Your task to perform on an android device: View the shopping cart on newegg. Search for usb-b on newegg, select the first entry, add it to the cart, then select checkout. Image 0: 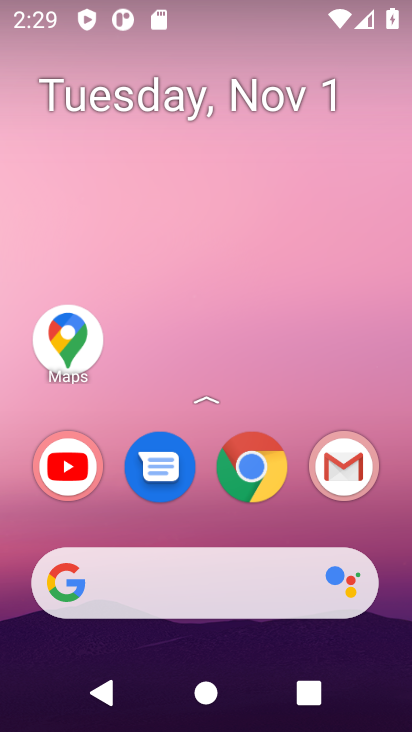
Step 0: click (269, 471)
Your task to perform on an android device: View the shopping cart on newegg. Search for usb-b on newegg, select the first entry, add it to the cart, then select checkout. Image 1: 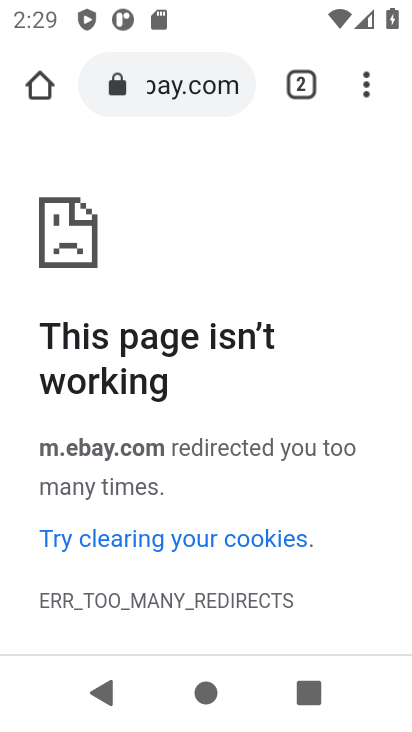
Step 1: click (216, 96)
Your task to perform on an android device: View the shopping cart on newegg. Search for usb-b on newegg, select the first entry, add it to the cart, then select checkout. Image 2: 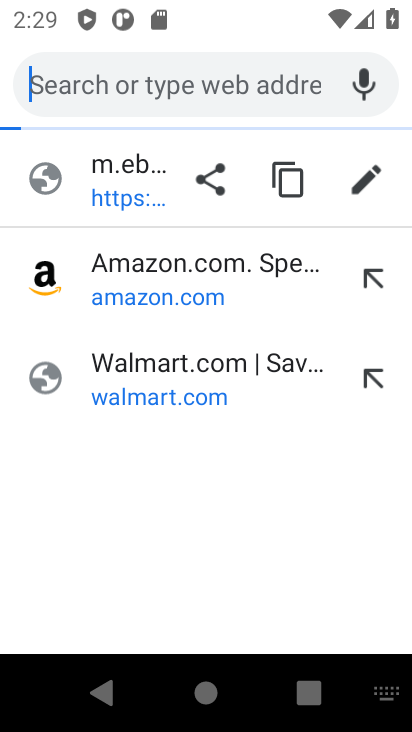
Step 2: type "newegg"
Your task to perform on an android device: View the shopping cart on newegg. Search for usb-b on newegg, select the first entry, add it to the cart, then select checkout. Image 3: 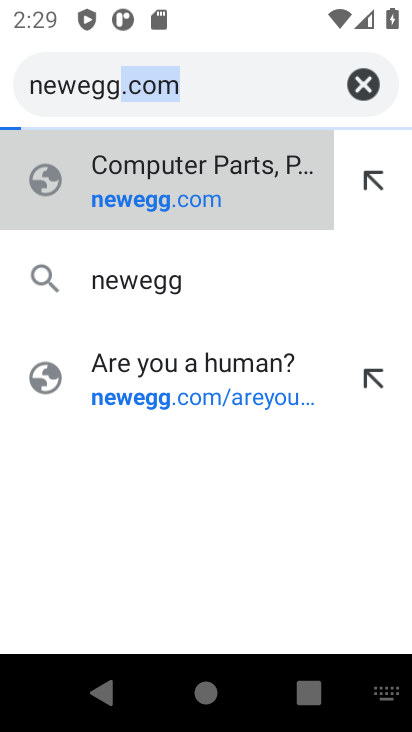
Step 3: type ""
Your task to perform on an android device: View the shopping cart on newegg. Search for usb-b on newegg, select the first entry, add it to the cart, then select checkout. Image 4: 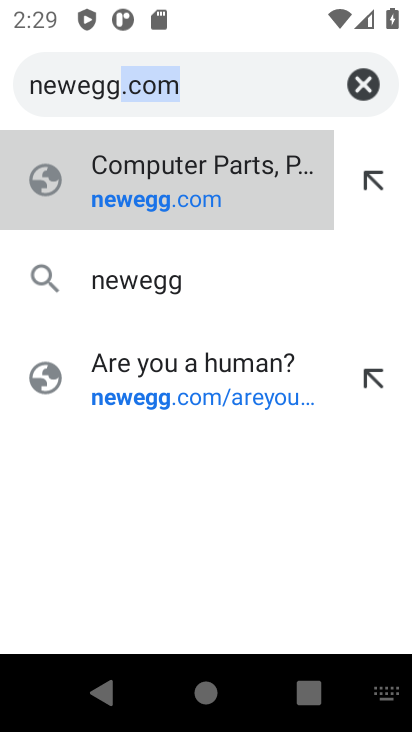
Step 4: press enter
Your task to perform on an android device: View the shopping cart on newegg. Search for usb-b on newegg, select the first entry, add it to the cart, then select checkout. Image 5: 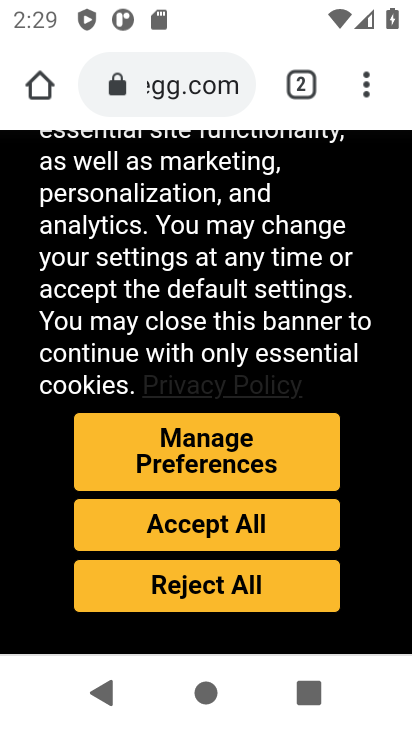
Step 5: click (236, 527)
Your task to perform on an android device: View the shopping cart on newegg. Search for usb-b on newegg, select the first entry, add it to the cart, then select checkout. Image 6: 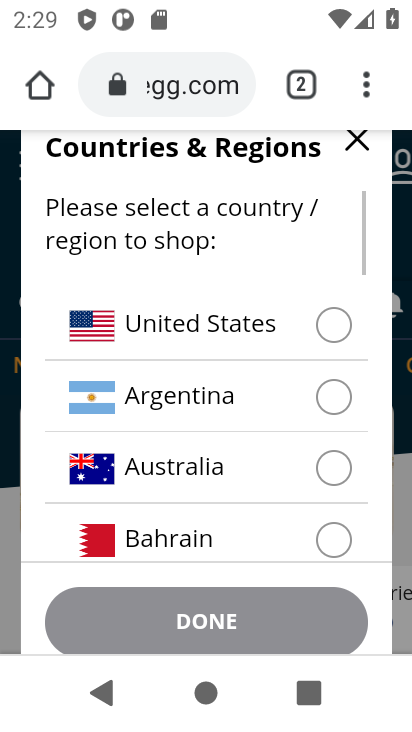
Step 6: click (330, 335)
Your task to perform on an android device: View the shopping cart on newegg. Search for usb-b on newegg, select the first entry, add it to the cart, then select checkout. Image 7: 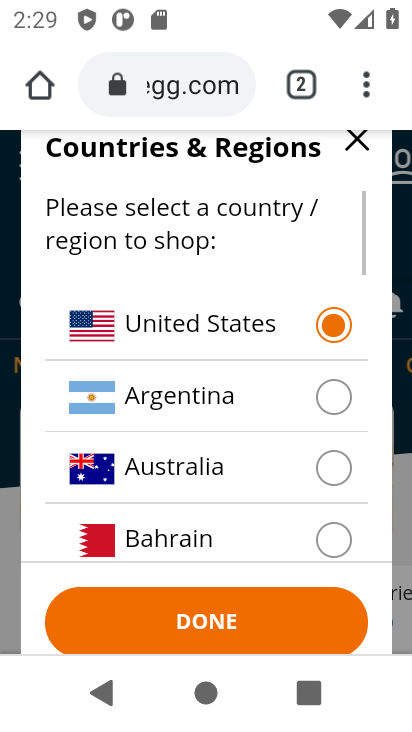
Step 7: click (247, 634)
Your task to perform on an android device: View the shopping cart on newegg. Search for usb-b on newegg, select the first entry, add it to the cart, then select checkout. Image 8: 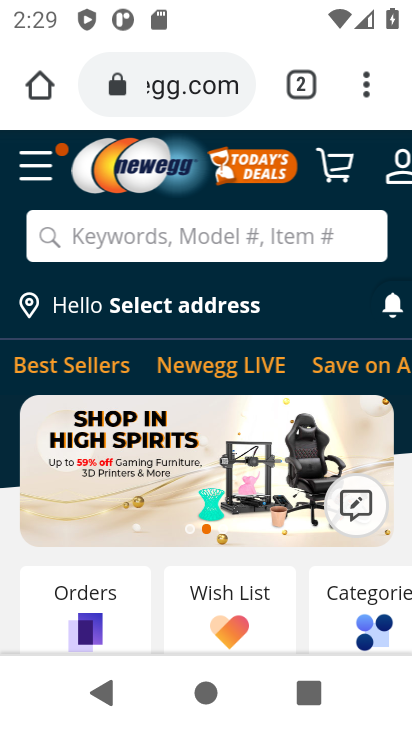
Step 8: click (187, 243)
Your task to perform on an android device: View the shopping cart on newegg. Search for usb-b on newegg, select the first entry, add it to the cart, then select checkout. Image 9: 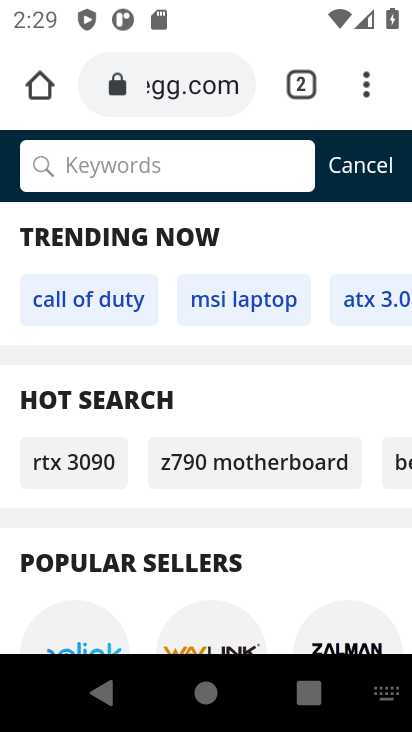
Step 9: type "usb-b"
Your task to perform on an android device: View the shopping cart on newegg. Search for usb-b on newegg, select the first entry, add it to the cart, then select checkout. Image 10: 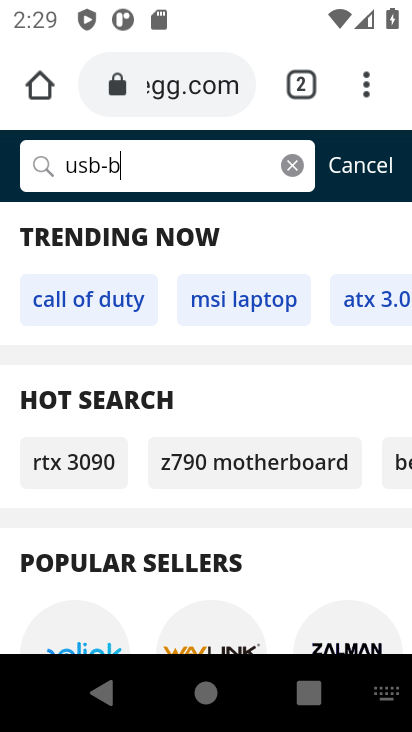
Step 10: type ""
Your task to perform on an android device: View the shopping cart on newegg. Search for usb-b on newegg, select the first entry, add it to the cart, then select checkout. Image 11: 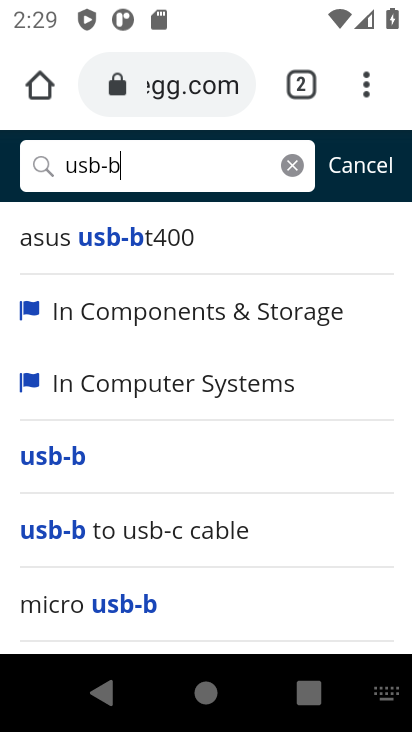
Step 11: press enter
Your task to perform on an android device: View the shopping cart on newegg. Search for usb-b on newegg, select the first entry, add it to the cart, then select checkout. Image 12: 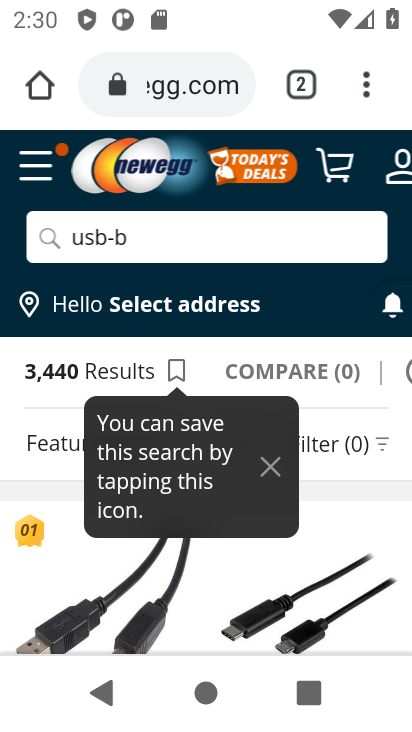
Step 12: click (270, 471)
Your task to perform on an android device: View the shopping cart on newegg. Search for usb-b on newegg, select the first entry, add it to the cart, then select checkout. Image 13: 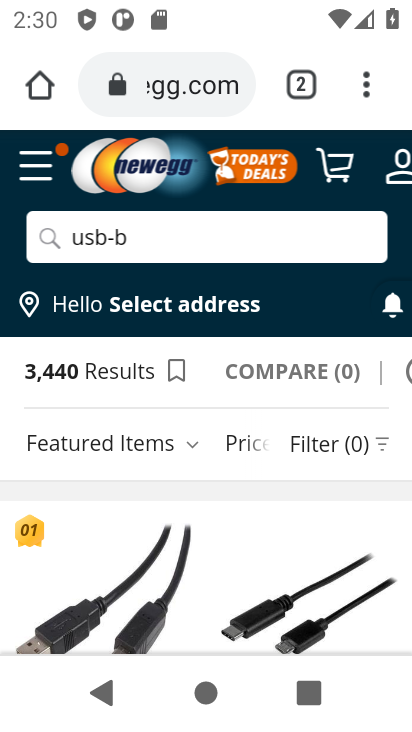
Step 13: drag from (221, 577) to (215, 261)
Your task to perform on an android device: View the shopping cart on newegg. Search for usb-b on newegg, select the first entry, add it to the cart, then select checkout. Image 14: 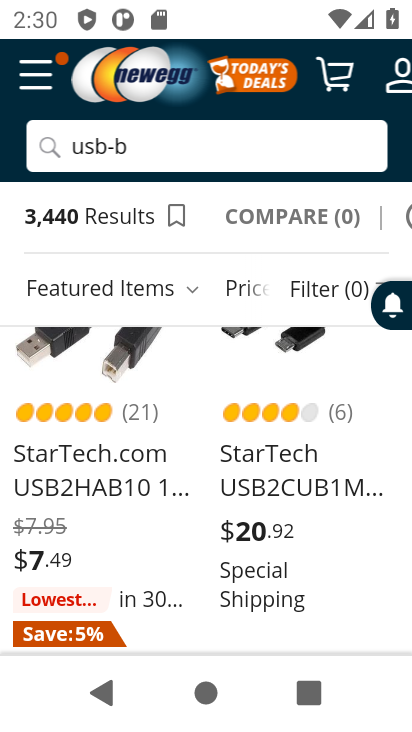
Step 14: click (119, 485)
Your task to perform on an android device: View the shopping cart on newegg. Search for usb-b on newegg, select the first entry, add it to the cart, then select checkout. Image 15: 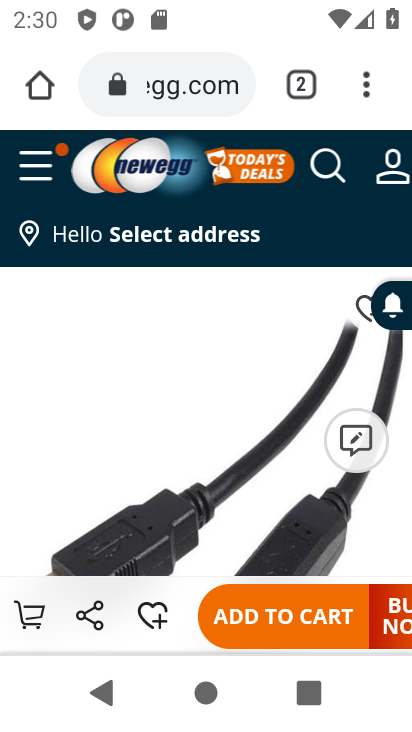
Step 15: click (260, 621)
Your task to perform on an android device: View the shopping cart on newegg. Search for usb-b on newegg, select the first entry, add it to the cart, then select checkout. Image 16: 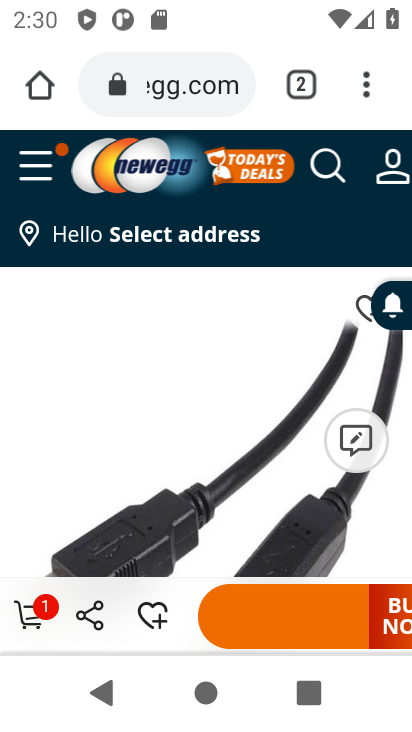
Step 16: click (40, 619)
Your task to perform on an android device: View the shopping cart on newegg. Search for usb-b on newegg, select the first entry, add it to the cart, then select checkout. Image 17: 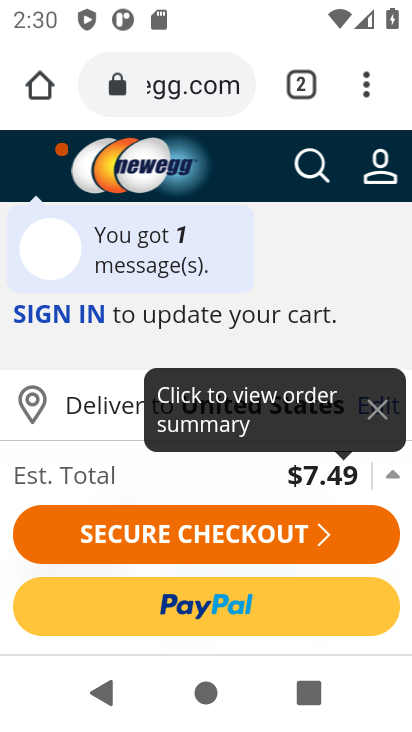
Step 17: click (201, 535)
Your task to perform on an android device: View the shopping cart on newegg. Search for usb-b on newegg, select the first entry, add it to the cart, then select checkout. Image 18: 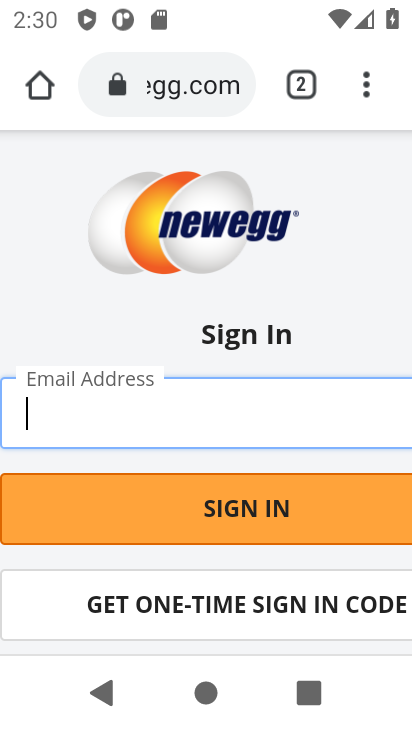
Step 18: task complete